Your task to perform on an android device: find photos in the google photos app Image 0: 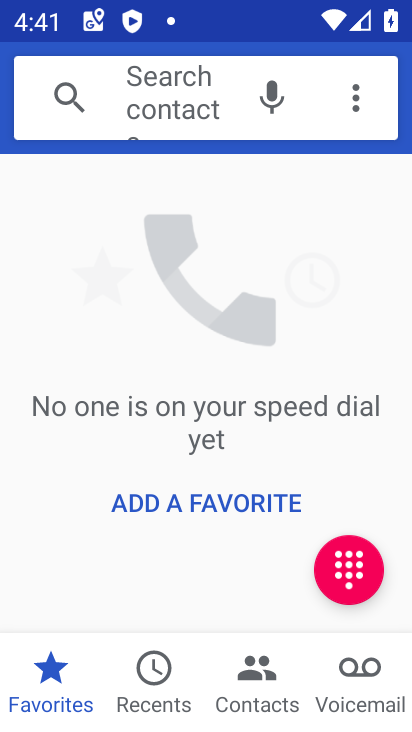
Step 0: press back button
Your task to perform on an android device: find photos in the google photos app Image 1: 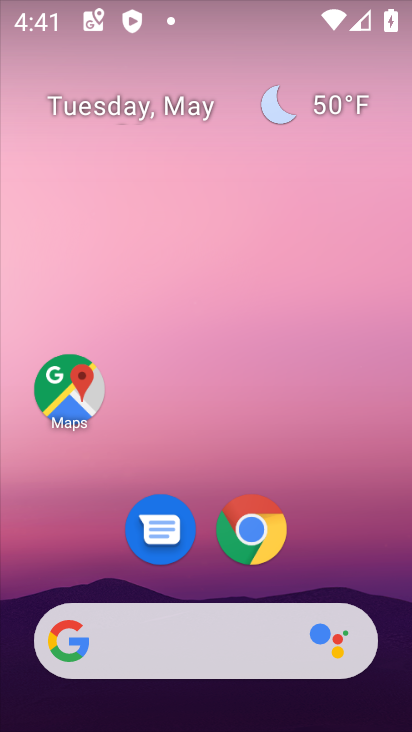
Step 1: drag from (337, 535) to (212, 13)
Your task to perform on an android device: find photos in the google photos app Image 2: 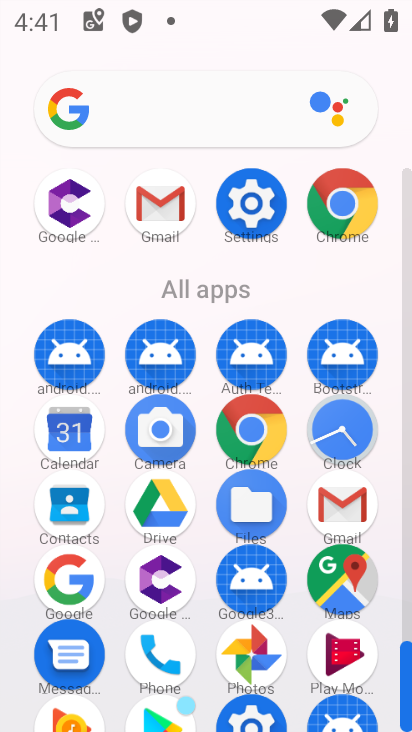
Step 2: drag from (18, 582) to (14, 223)
Your task to perform on an android device: find photos in the google photos app Image 3: 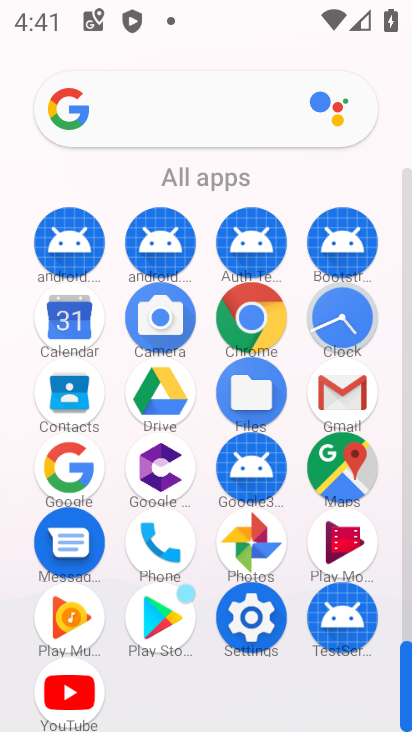
Step 3: click (252, 537)
Your task to perform on an android device: find photos in the google photos app Image 4: 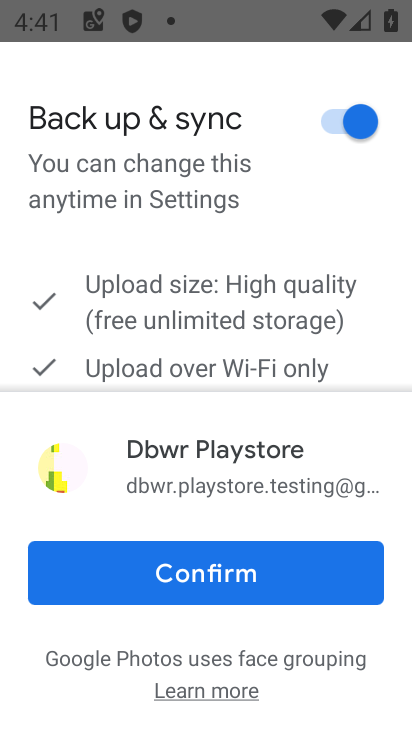
Step 4: click (206, 565)
Your task to perform on an android device: find photos in the google photos app Image 5: 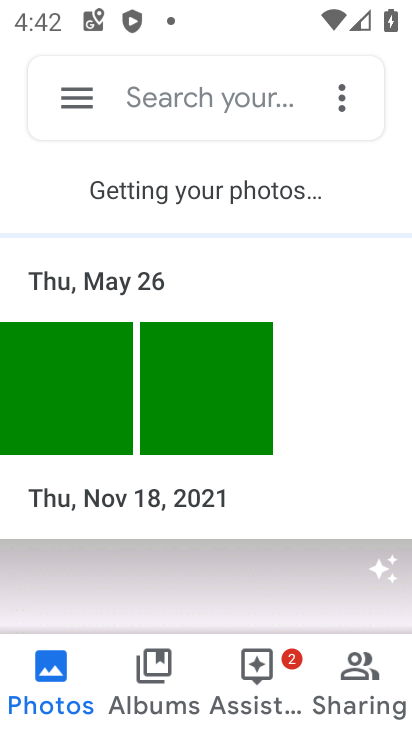
Step 5: task complete